Your task to perform on an android device: open a bookmark in the chrome app Image 0: 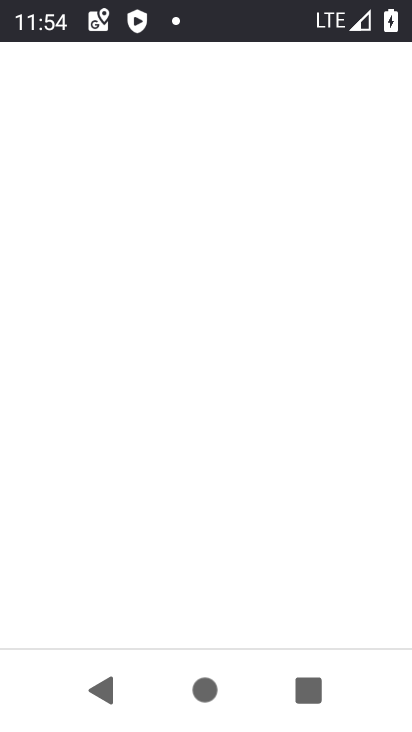
Step 0: drag from (380, 511) to (313, 15)
Your task to perform on an android device: open a bookmark in the chrome app Image 1: 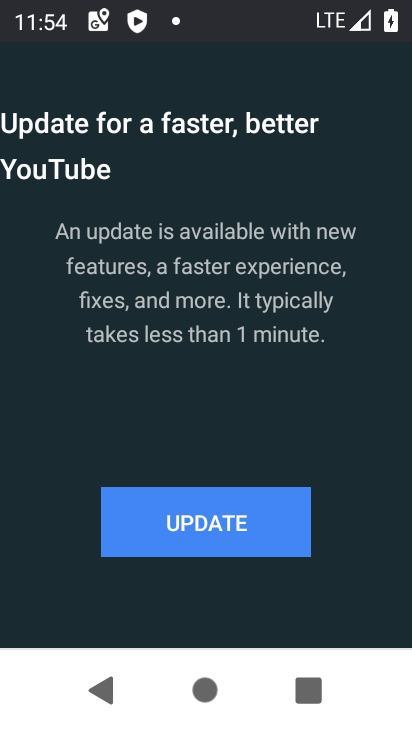
Step 1: press home button
Your task to perform on an android device: open a bookmark in the chrome app Image 2: 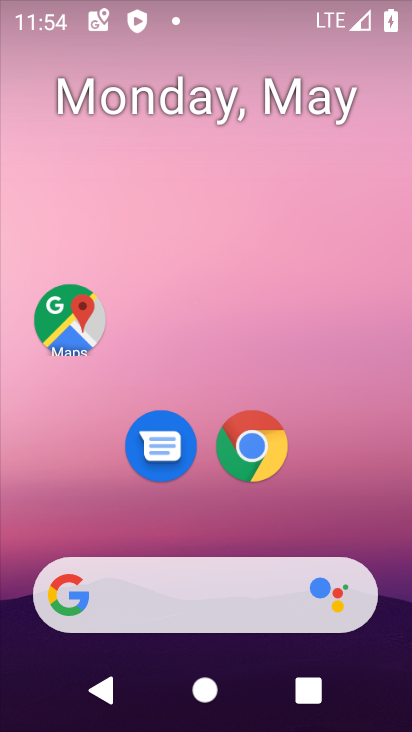
Step 2: drag from (346, 540) to (327, 58)
Your task to perform on an android device: open a bookmark in the chrome app Image 3: 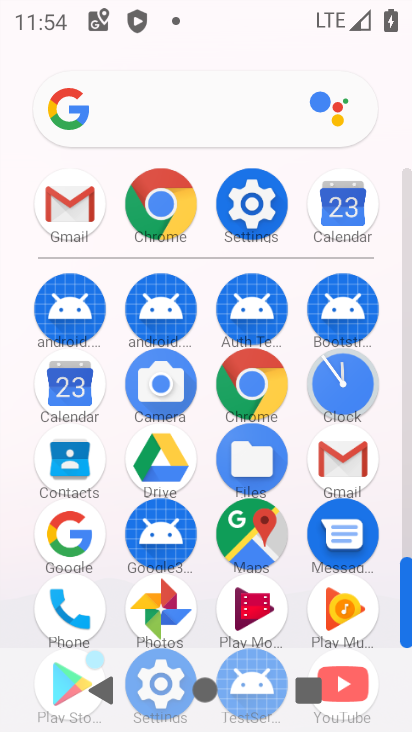
Step 3: click (173, 212)
Your task to perform on an android device: open a bookmark in the chrome app Image 4: 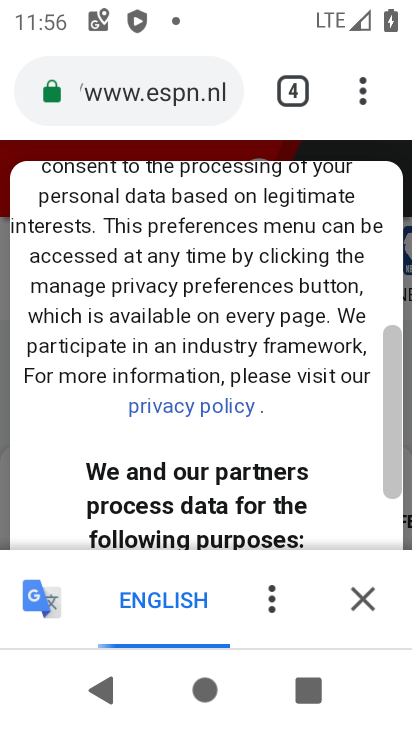
Step 4: task complete